Your task to perform on an android device: turn off airplane mode Image 0: 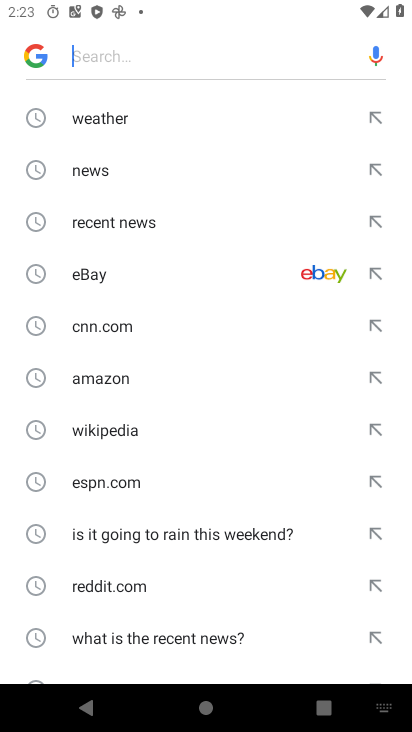
Step 0: press home button
Your task to perform on an android device: turn off airplane mode Image 1: 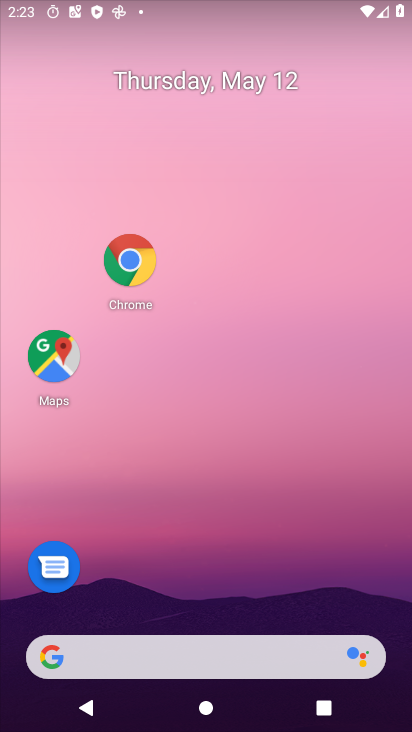
Step 1: drag from (149, 640) to (168, 176)
Your task to perform on an android device: turn off airplane mode Image 2: 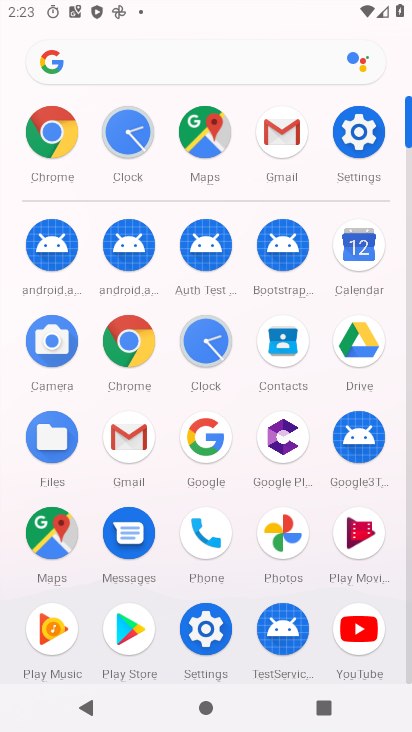
Step 2: click (359, 134)
Your task to perform on an android device: turn off airplane mode Image 3: 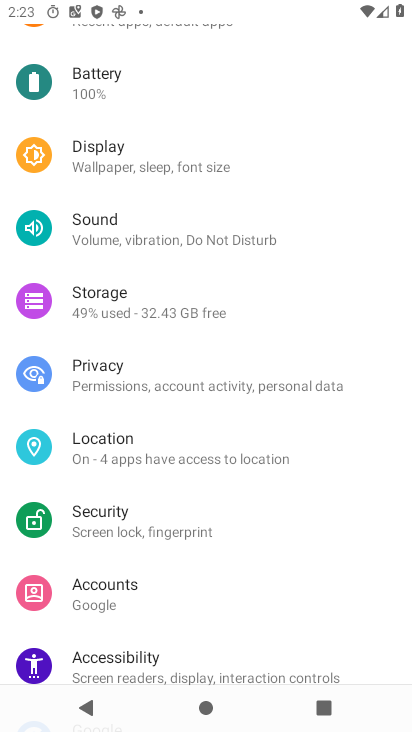
Step 3: drag from (174, 90) to (179, 513)
Your task to perform on an android device: turn off airplane mode Image 4: 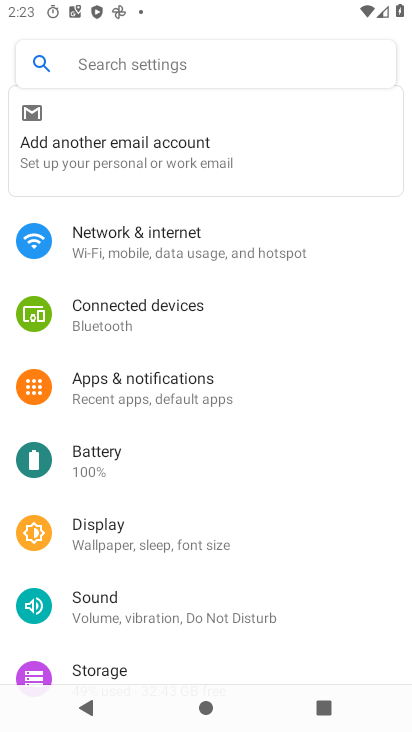
Step 4: click (126, 231)
Your task to perform on an android device: turn off airplane mode Image 5: 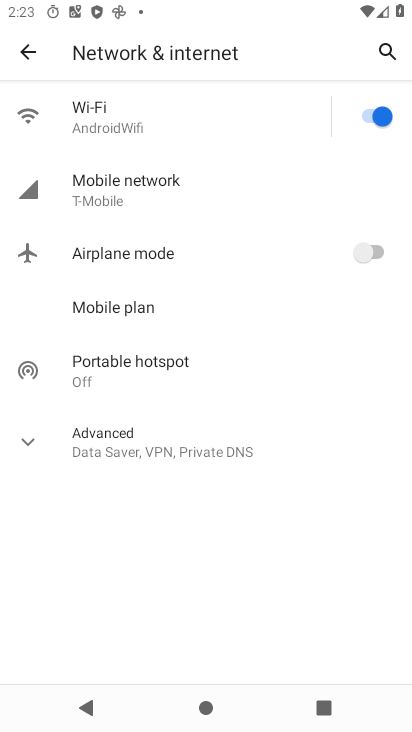
Step 5: task complete